Your task to perform on an android device: toggle pop-ups in chrome Image 0: 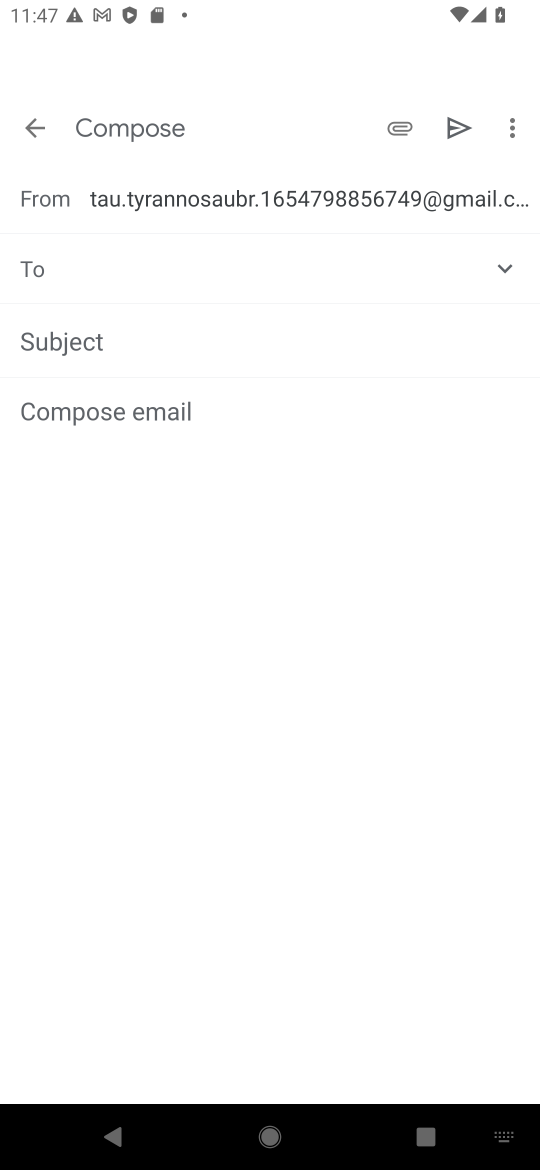
Step 0: press home button
Your task to perform on an android device: toggle pop-ups in chrome Image 1: 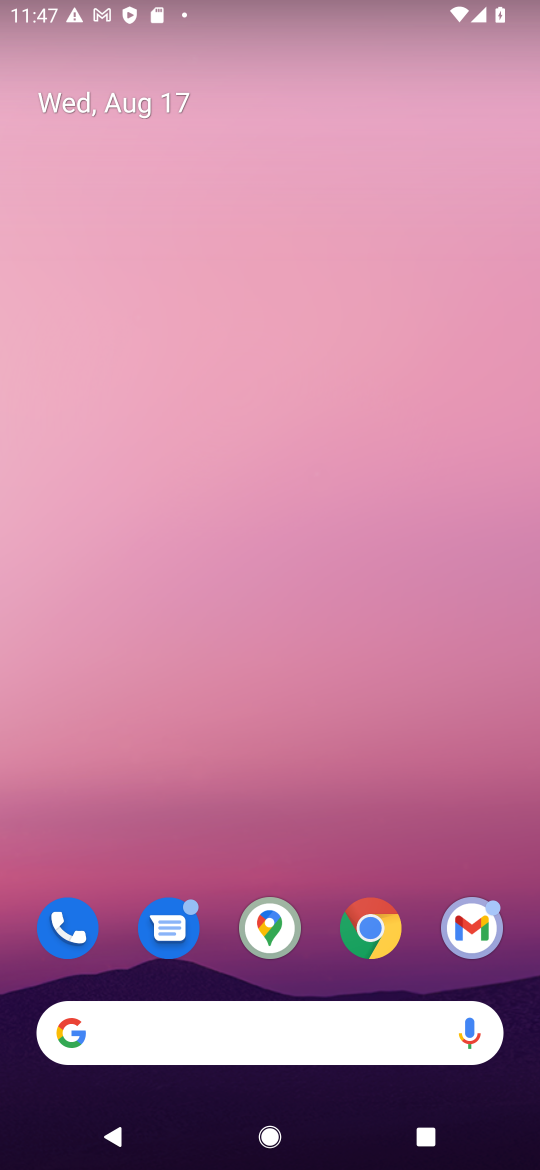
Step 1: click (373, 933)
Your task to perform on an android device: toggle pop-ups in chrome Image 2: 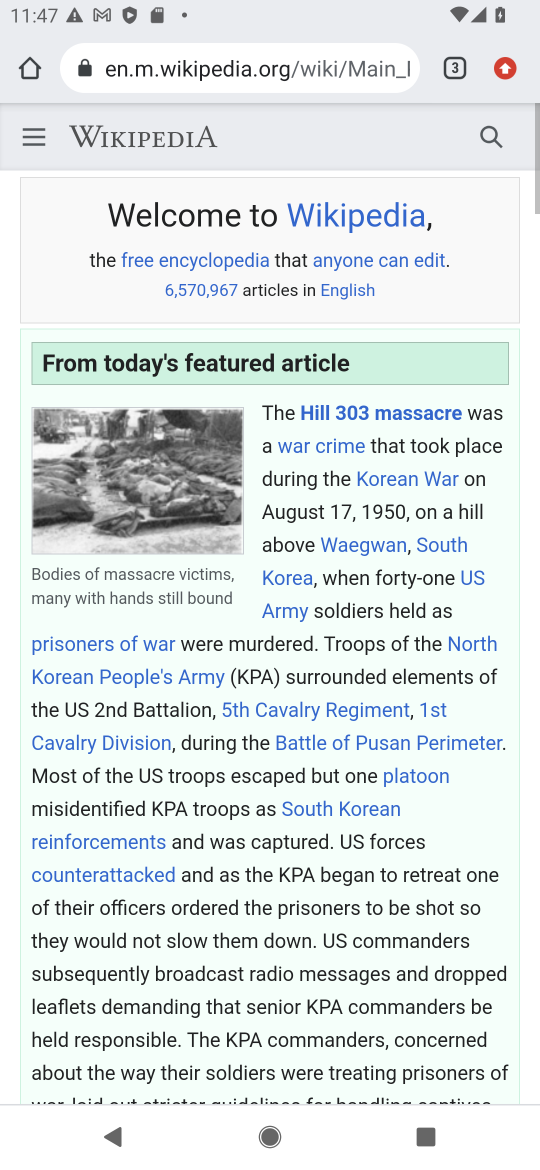
Step 2: click (498, 71)
Your task to perform on an android device: toggle pop-ups in chrome Image 3: 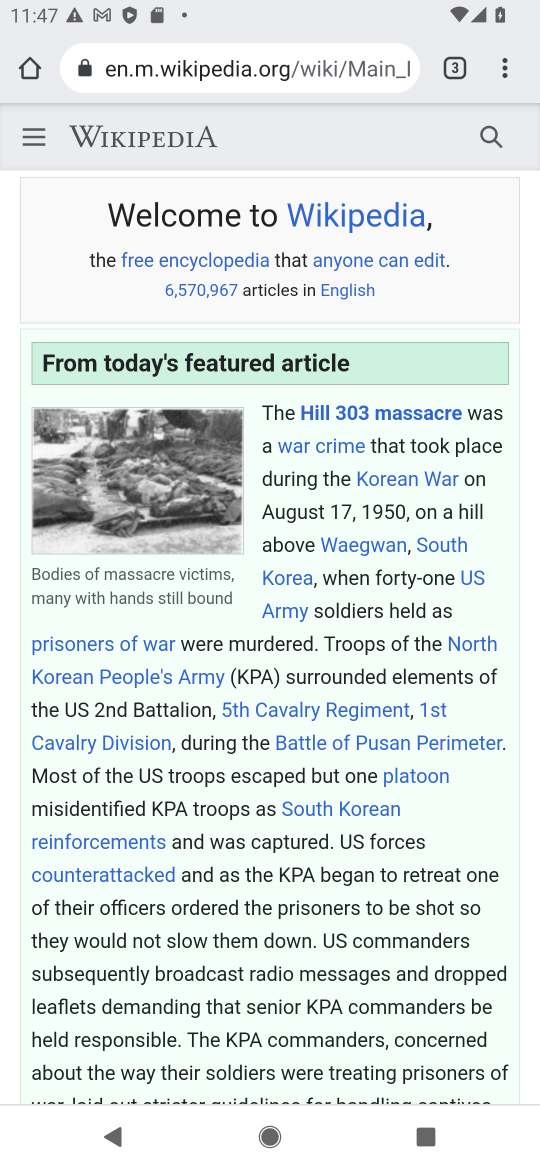
Step 3: click (498, 71)
Your task to perform on an android device: toggle pop-ups in chrome Image 4: 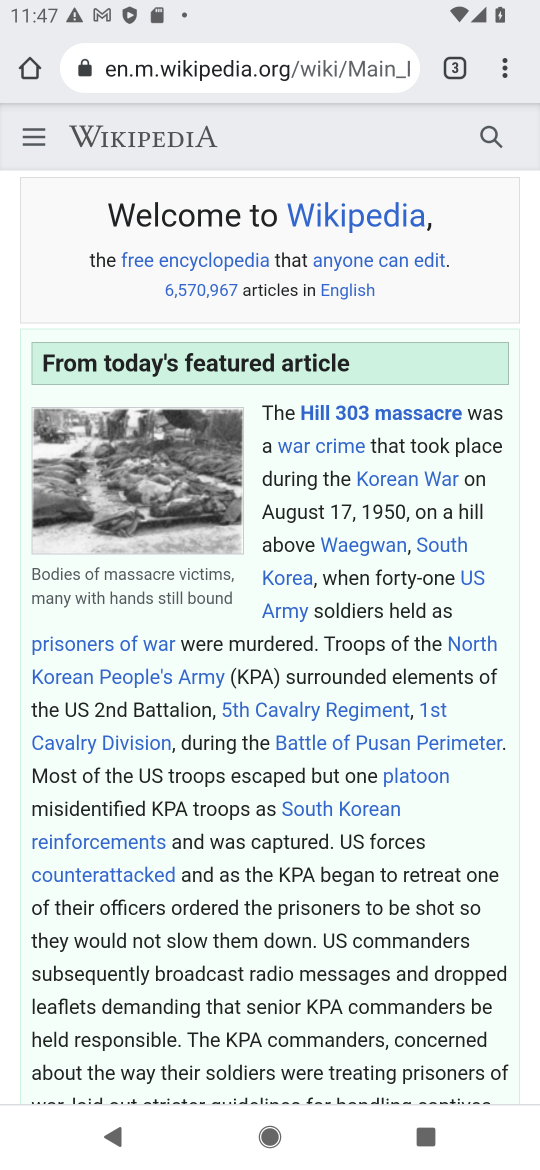
Step 4: click (498, 71)
Your task to perform on an android device: toggle pop-ups in chrome Image 5: 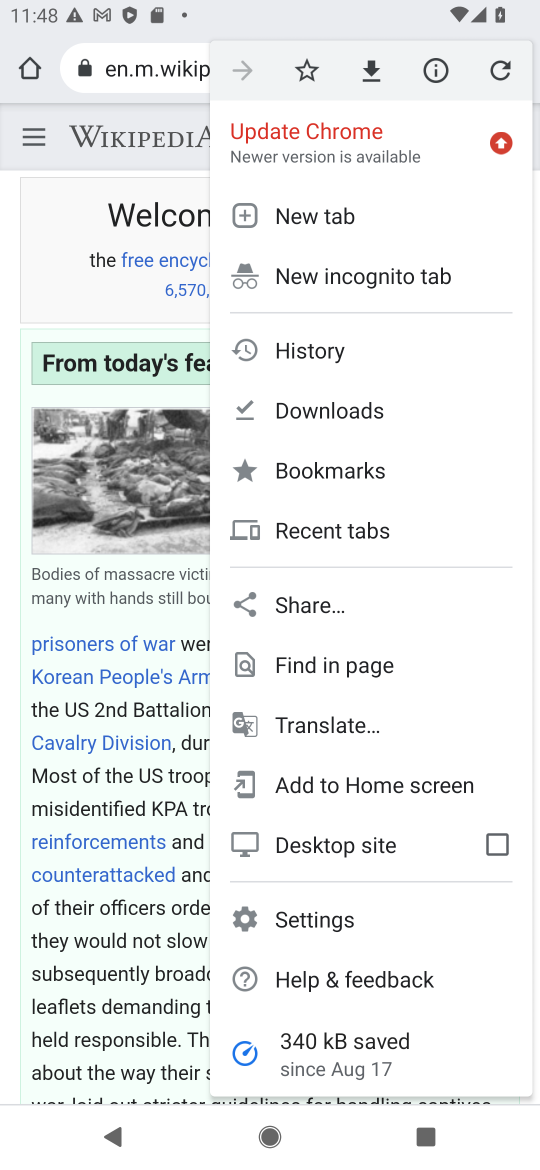
Step 5: click (371, 915)
Your task to perform on an android device: toggle pop-ups in chrome Image 6: 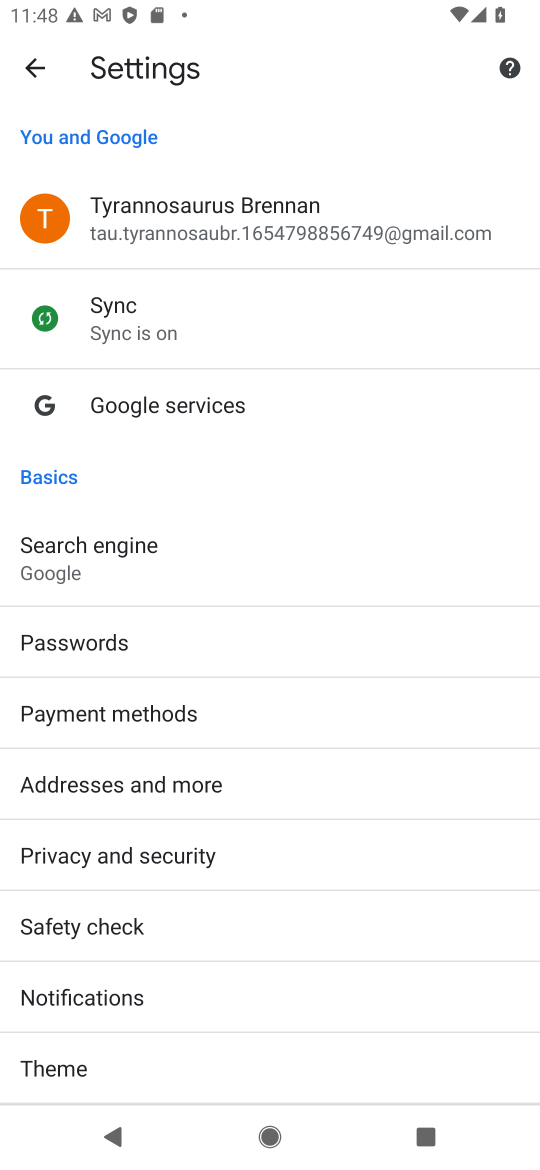
Step 6: drag from (246, 899) to (287, 503)
Your task to perform on an android device: toggle pop-ups in chrome Image 7: 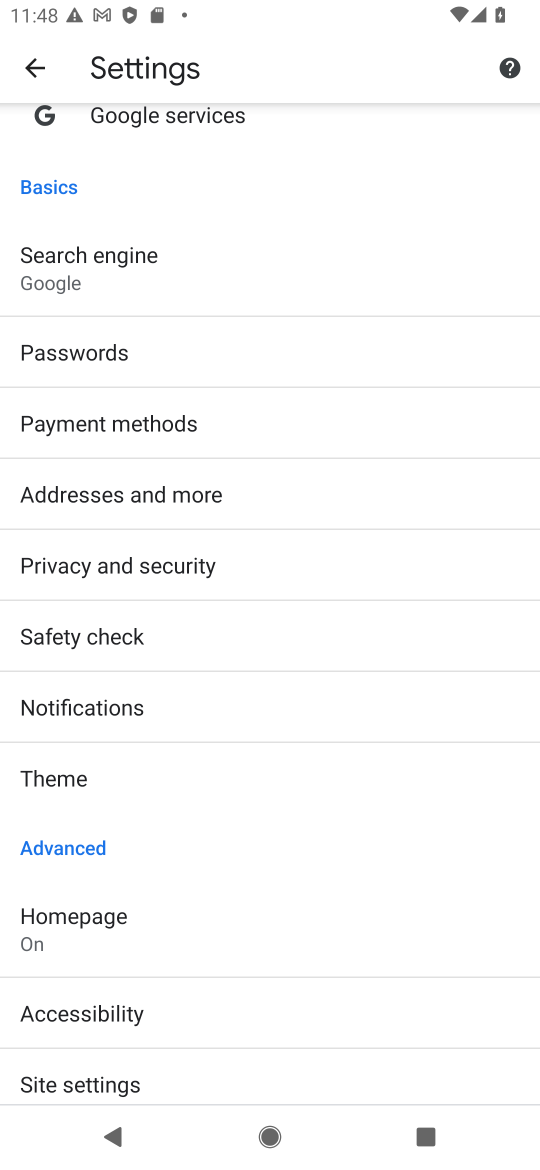
Step 7: click (188, 1079)
Your task to perform on an android device: toggle pop-ups in chrome Image 8: 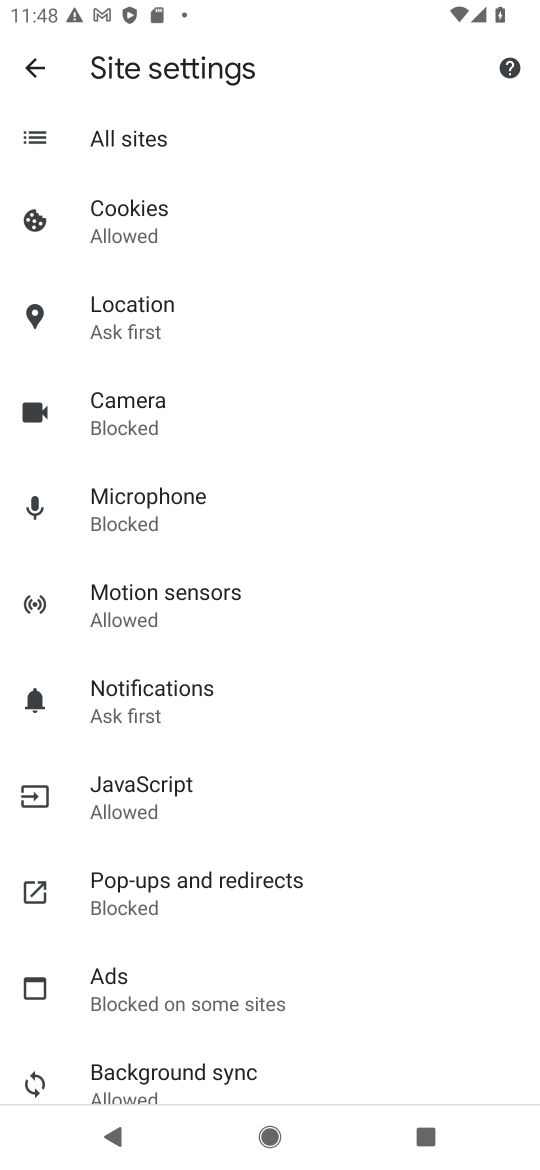
Step 8: click (214, 886)
Your task to perform on an android device: toggle pop-ups in chrome Image 9: 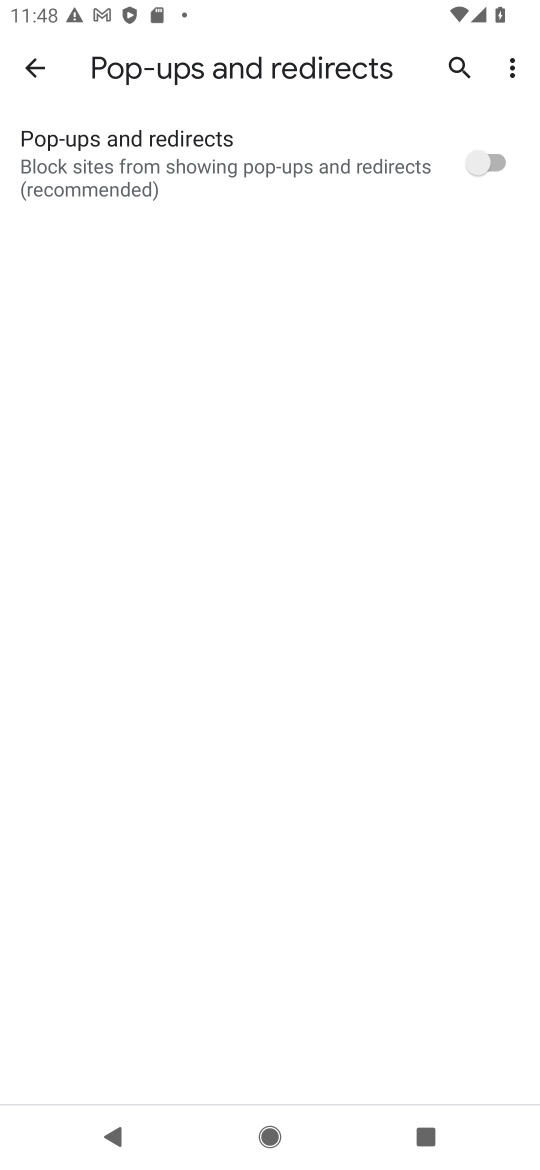
Step 9: click (491, 158)
Your task to perform on an android device: toggle pop-ups in chrome Image 10: 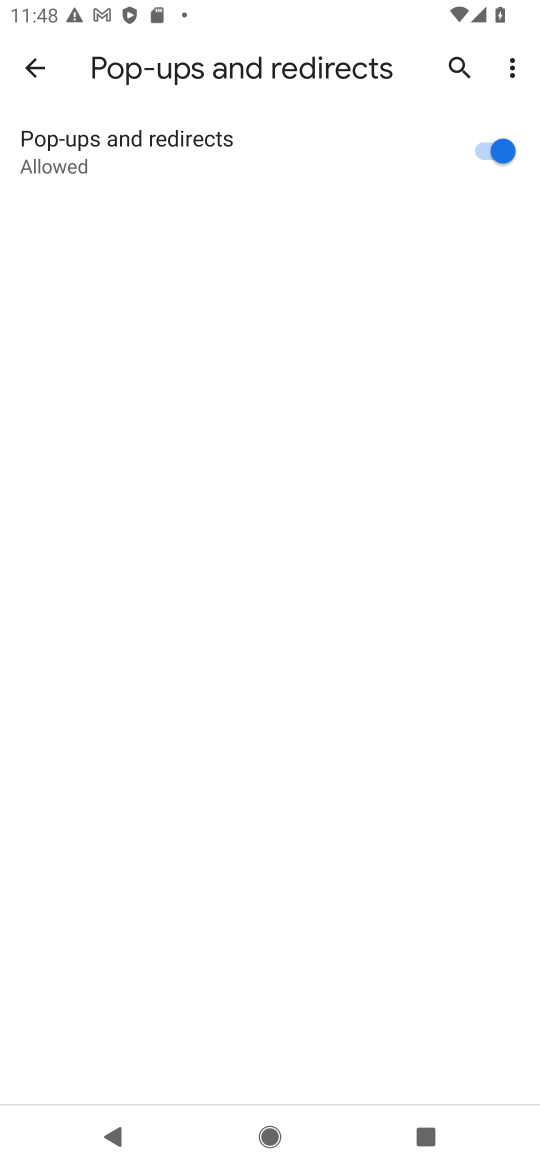
Step 10: task complete